Your task to perform on an android device: see tabs open on other devices in the chrome app Image 0: 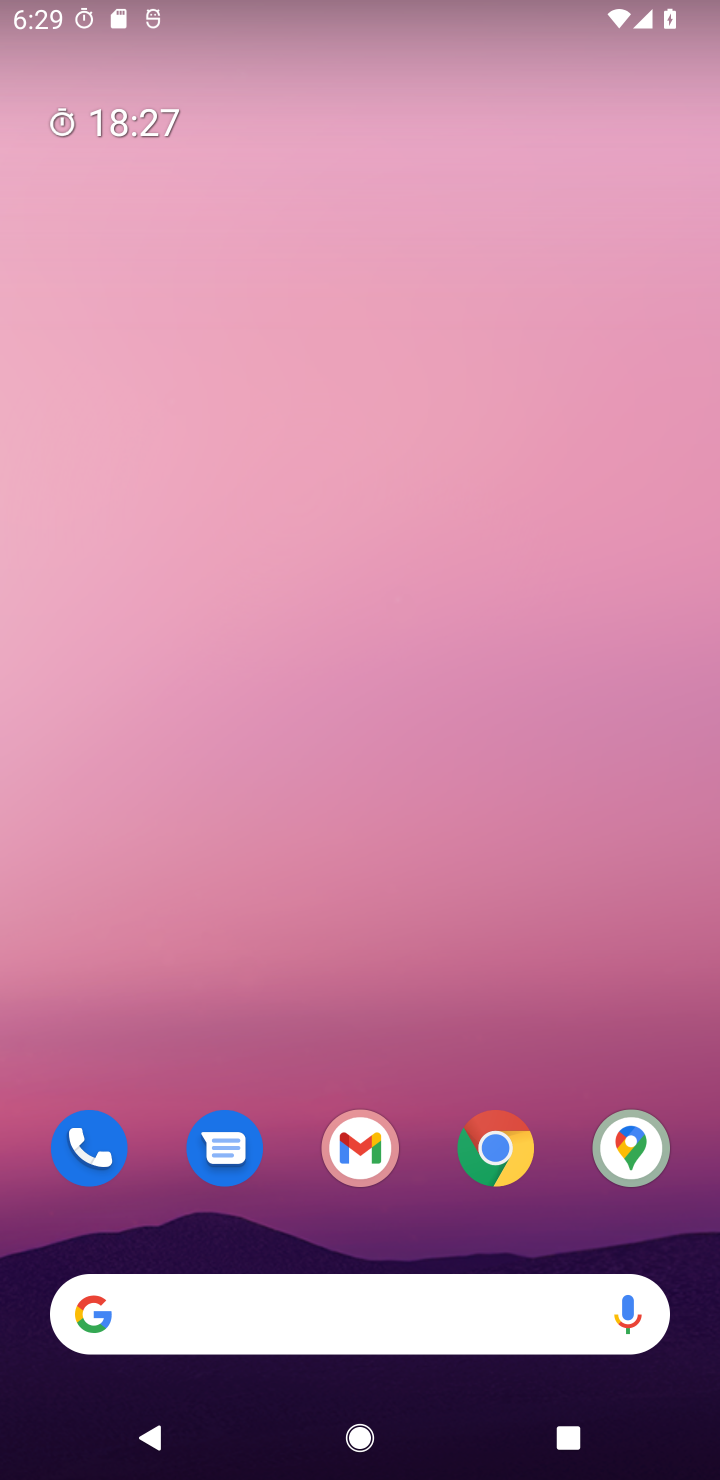
Step 0: click (495, 1146)
Your task to perform on an android device: see tabs open on other devices in the chrome app Image 1: 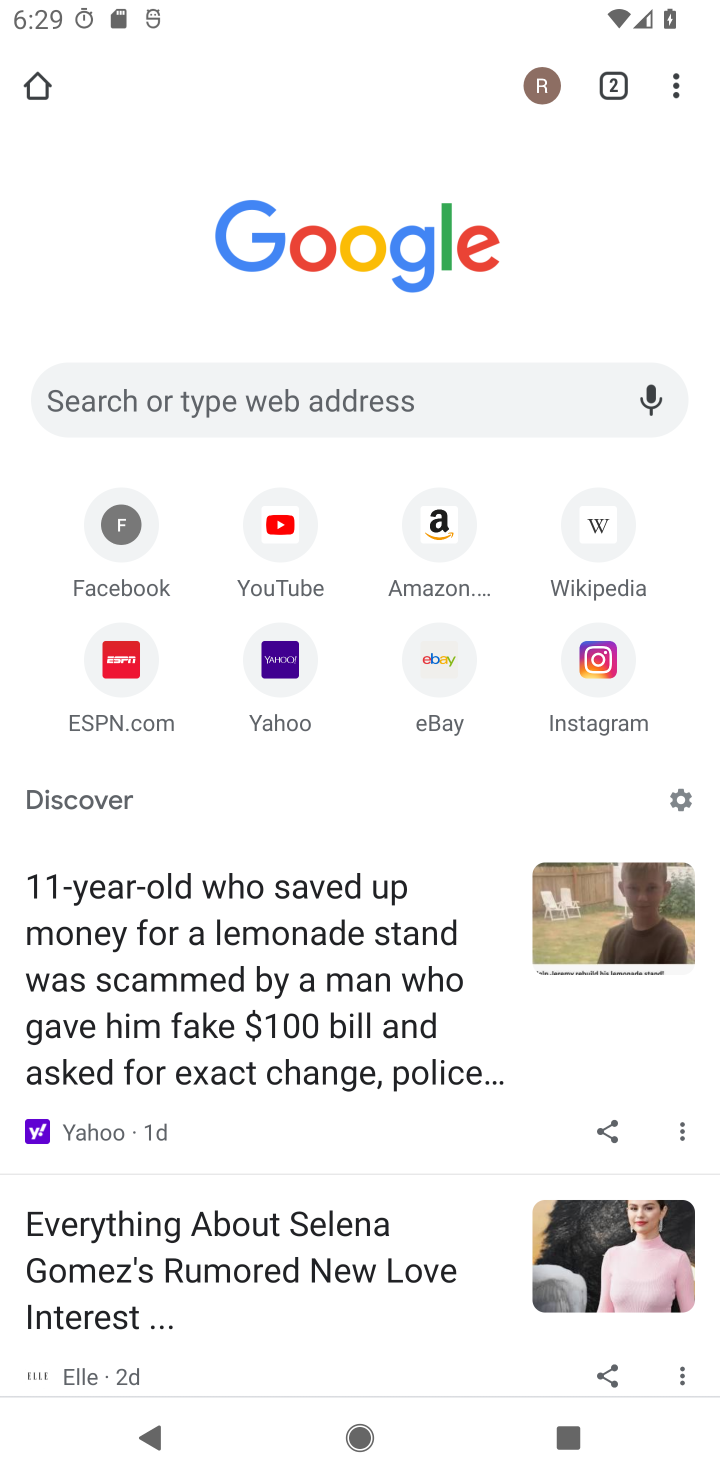
Step 1: click (679, 68)
Your task to perform on an android device: see tabs open on other devices in the chrome app Image 2: 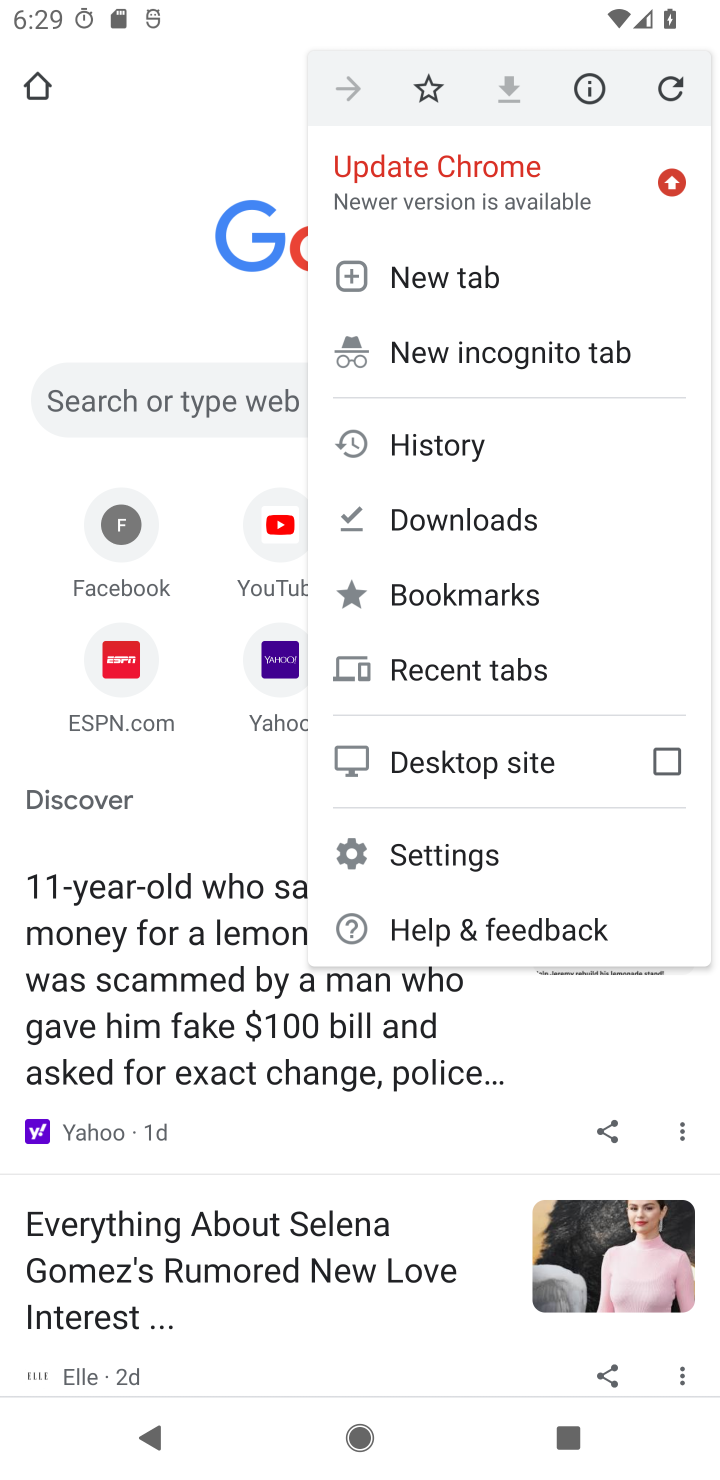
Step 2: click (477, 679)
Your task to perform on an android device: see tabs open on other devices in the chrome app Image 3: 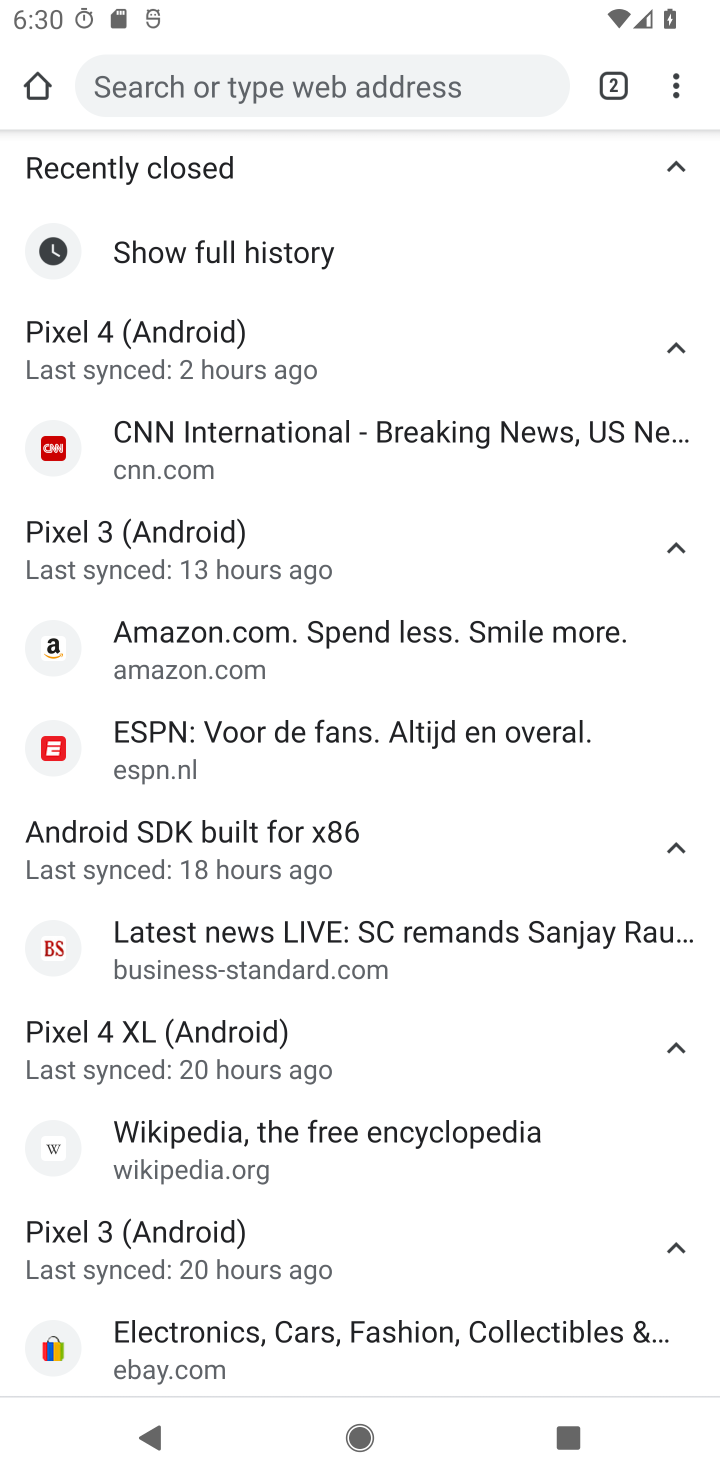
Step 3: task complete